Your task to perform on an android device: turn notification dots off Image 0: 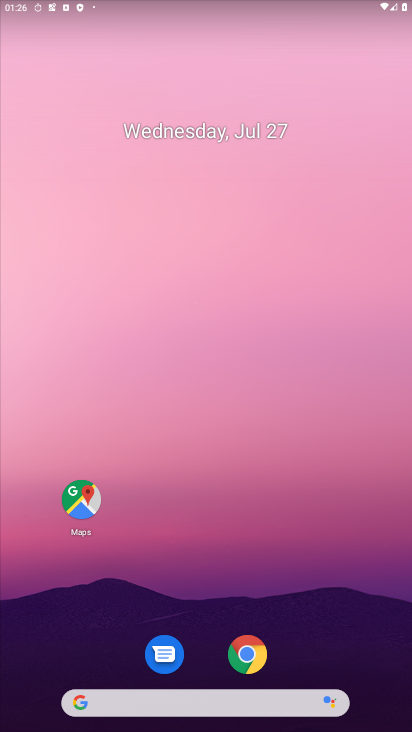
Step 0: drag from (272, 587) to (334, 24)
Your task to perform on an android device: turn notification dots off Image 1: 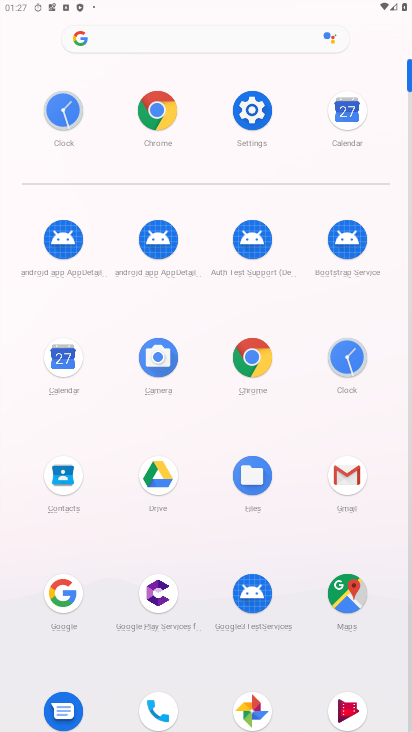
Step 1: click (241, 104)
Your task to perform on an android device: turn notification dots off Image 2: 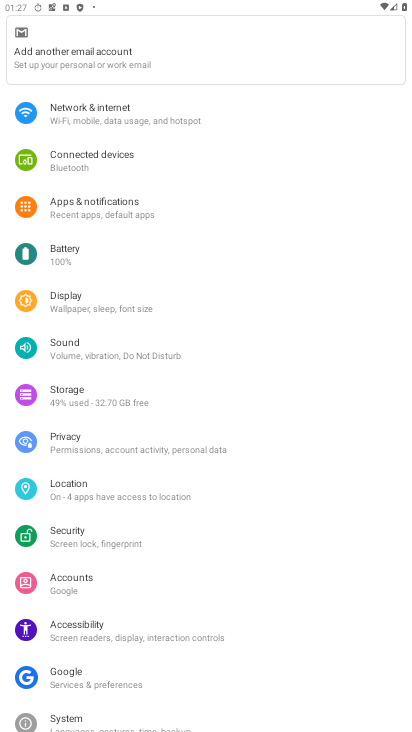
Step 2: click (165, 217)
Your task to perform on an android device: turn notification dots off Image 3: 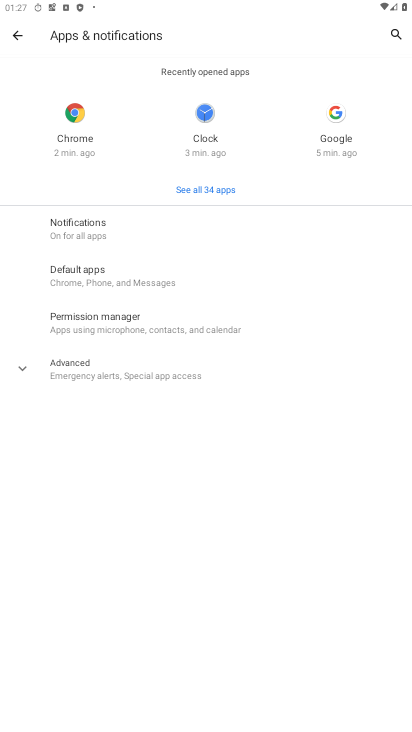
Step 3: click (124, 230)
Your task to perform on an android device: turn notification dots off Image 4: 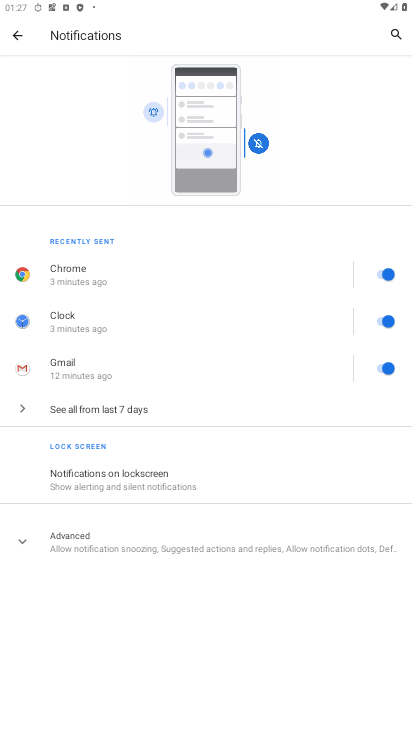
Step 4: click (97, 543)
Your task to perform on an android device: turn notification dots off Image 5: 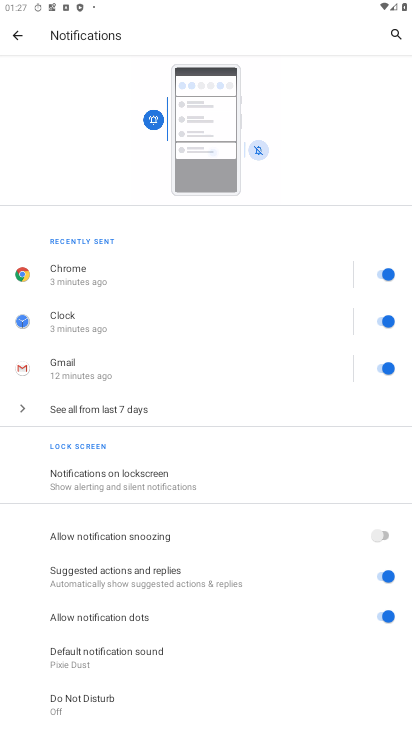
Step 5: click (383, 617)
Your task to perform on an android device: turn notification dots off Image 6: 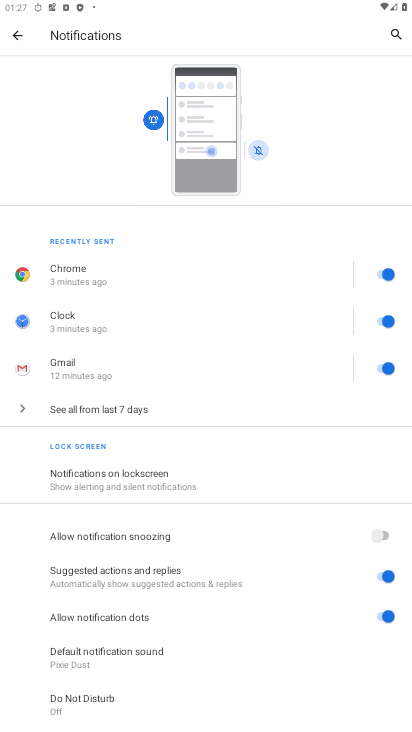
Step 6: task complete